Your task to perform on an android device: turn on translation in the chrome app Image 0: 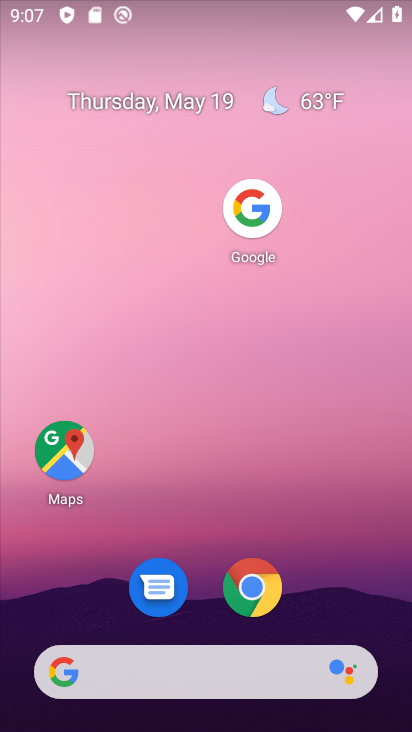
Step 0: click (254, 588)
Your task to perform on an android device: turn on translation in the chrome app Image 1: 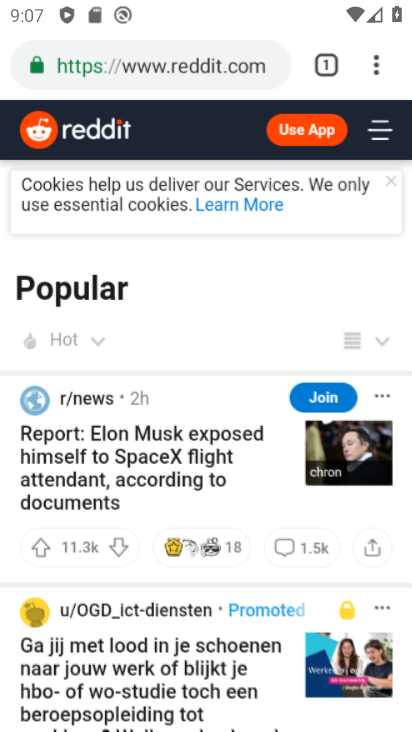
Step 1: click (374, 52)
Your task to perform on an android device: turn on translation in the chrome app Image 2: 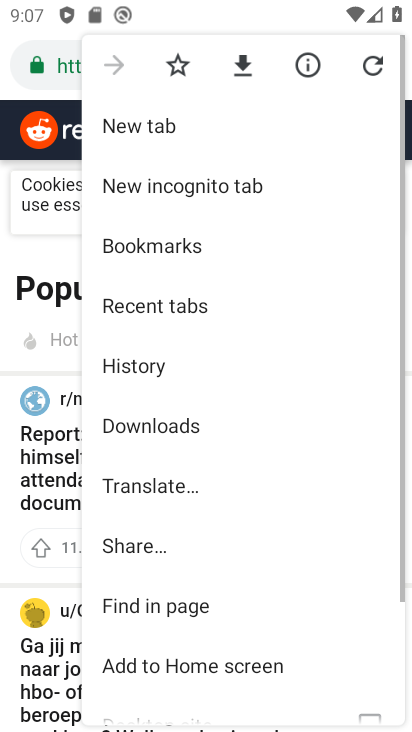
Step 2: drag from (193, 574) to (155, 76)
Your task to perform on an android device: turn on translation in the chrome app Image 3: 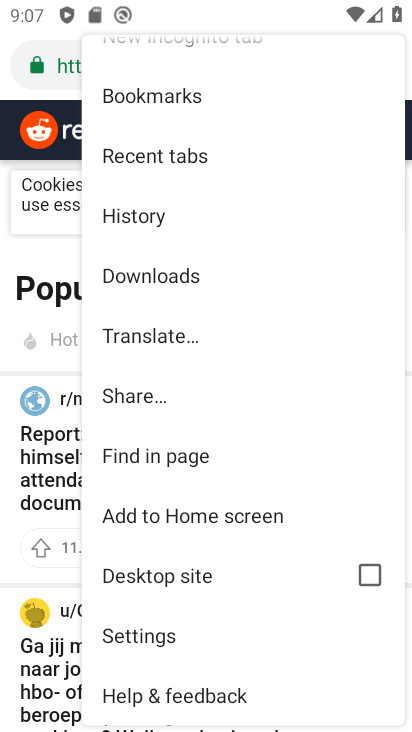
Step 3: click (126, 625)
Your task to perform on an android device: turn on translation in the chrome app Image 4: 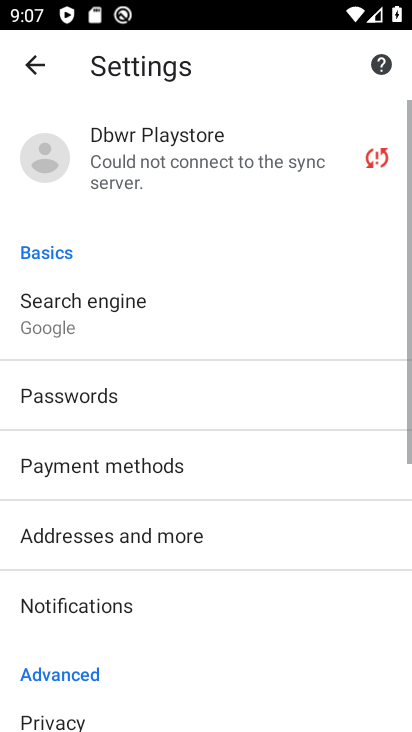
Step 4: drag from (112, 663) to (119, 138)
Your task to perform on an android device: turn on translation in the chrome app Image 5: 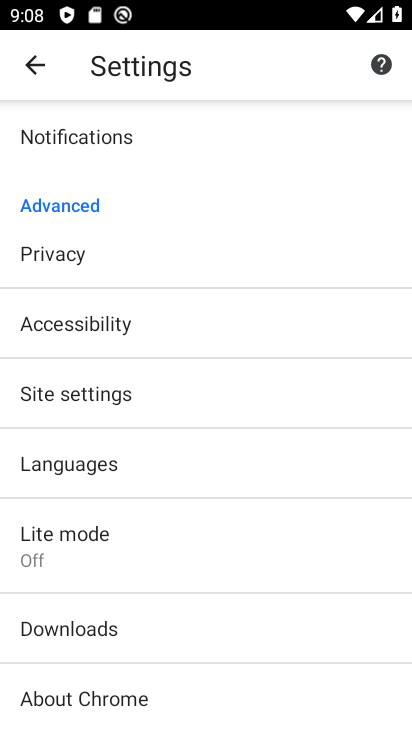
Step 5: click (84, 475)
Your task to perform on an android device: turn on translation in the chrome app Image 6: 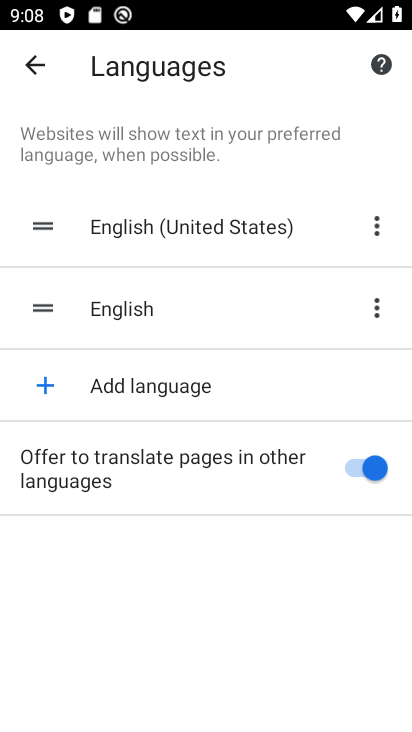
Step 6: task complete